Your task to perform on an android device: uninstall "Google Play Games" Image 0: 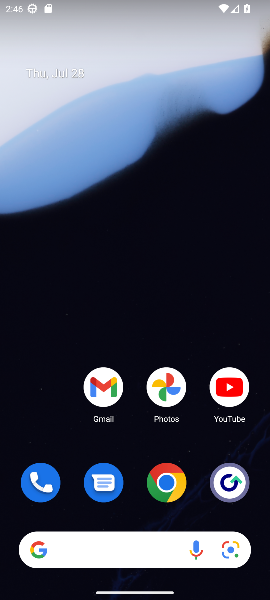
Step 0: drag from (131, 518) to (146, 7)
Your task to perform on an android device: uninstall "Google Play Games" Image 1: 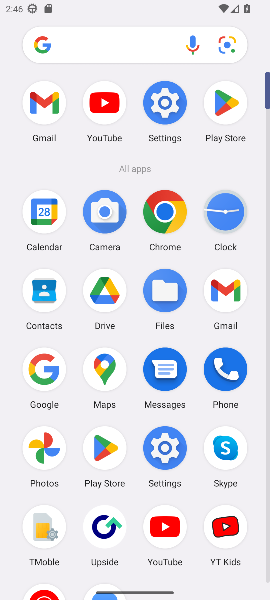
Step 1: click (221, 112)
Your task to perform on an android device: uninstall "Google Play Games" Image 2: 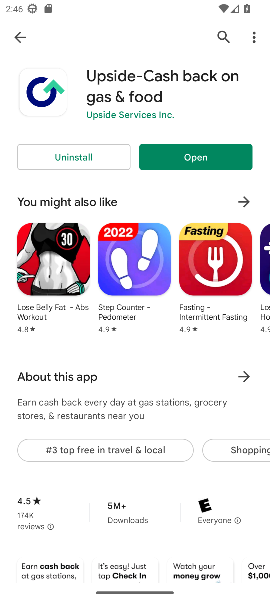
Step 2: click (19, 34)
Your task to perform on an android device: uninstall "Google Play Games" Image 3: 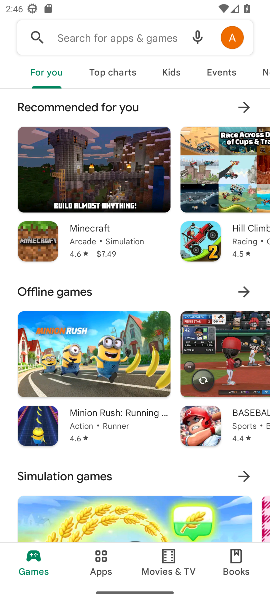
Step 3: click (115, 37)
Your task to perform on an android device: uninstall "Google Play Games" Image 4: 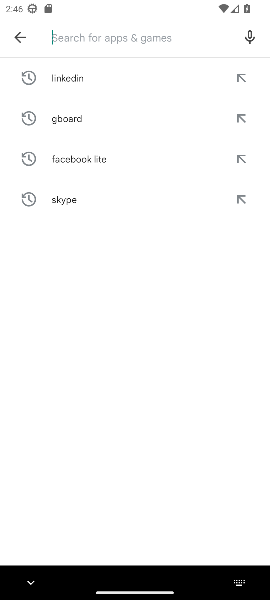
Step 4: type "google play games"
Your task to perform on an android device: uninstall "Google Play Games" Image 5: 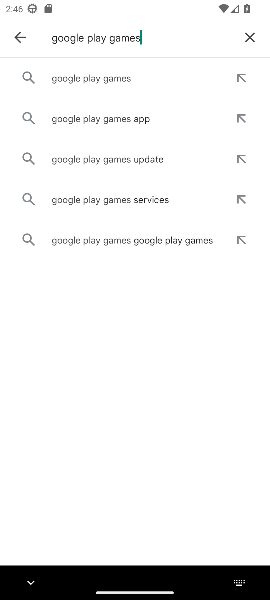
Step 5: click (112, 77)
Your task to perform on an android device: uninstall "Google Play Games" Image 6: 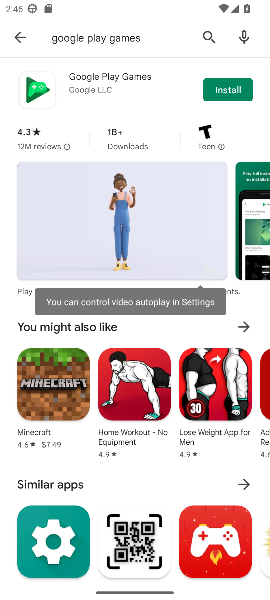
Step 6: task complete